Your task to perform on an android device: Show me popular games on the Play Store Image 0: 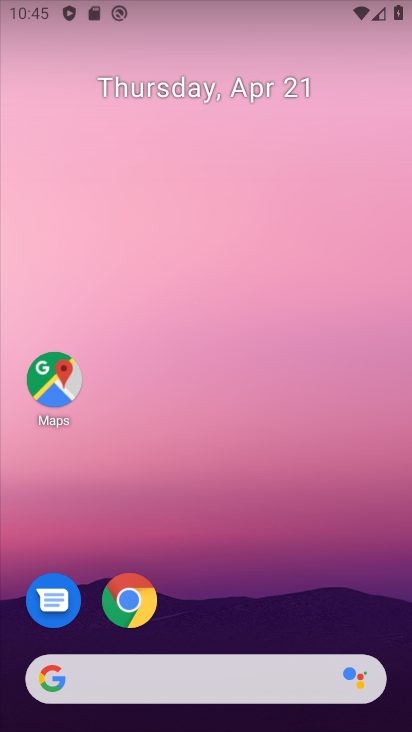
Step 0: drag from (306, 517) to (306, 37)
Your task to perform on an android device: Show me popular games on the Play Store Image 1: 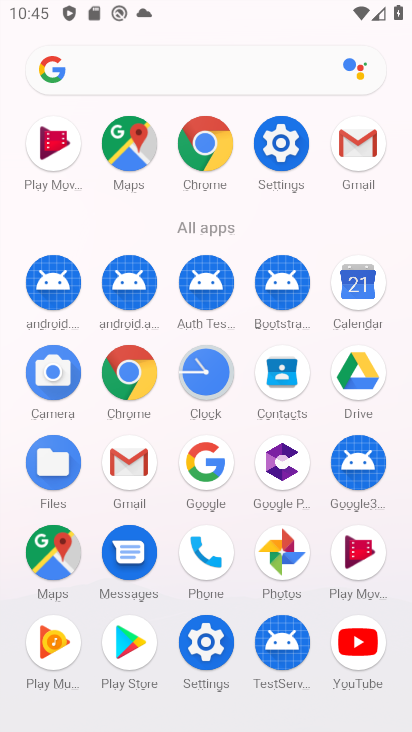
Step 1: click (118, 632)
Your task to perform on an android device: Show me popular games on the Play Store Image 2: 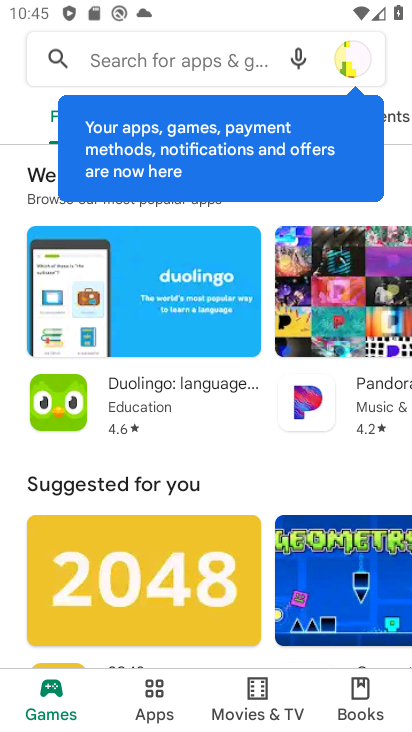
Step 2: task complete